Your task to perform on an android device: Open Android settings Image 0: 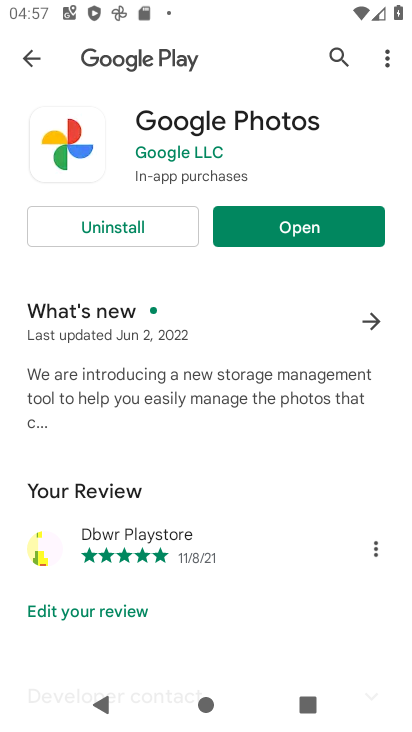
Step 0: task complete